Your task to perform on an android device: Open Google Chrome and click the shortcut for Amazon.com Image 0: 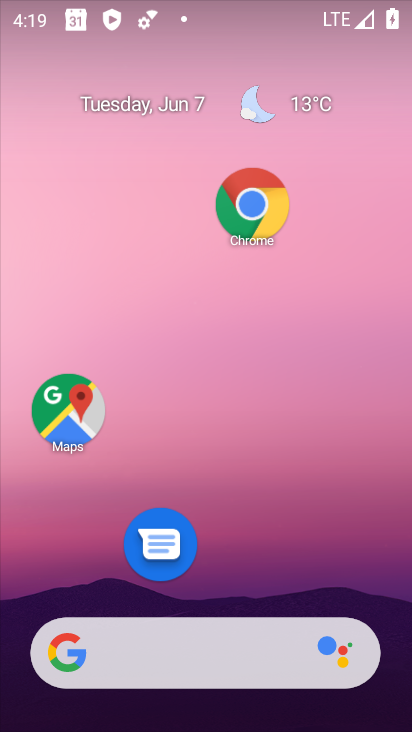
Step 0: drag from (232, 568) to (242, 232)
Your task to perform on an android device: Open Google Chrome and click the shortcut for Amazon.com Image 1: 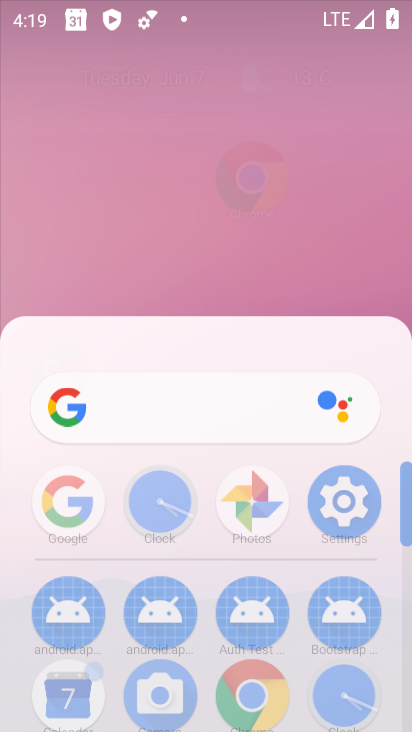
Step 1: click (245, 80)
Your task to perform on an android device: Open Google Chrome and click the shortcut for Amazon.com Image 2: 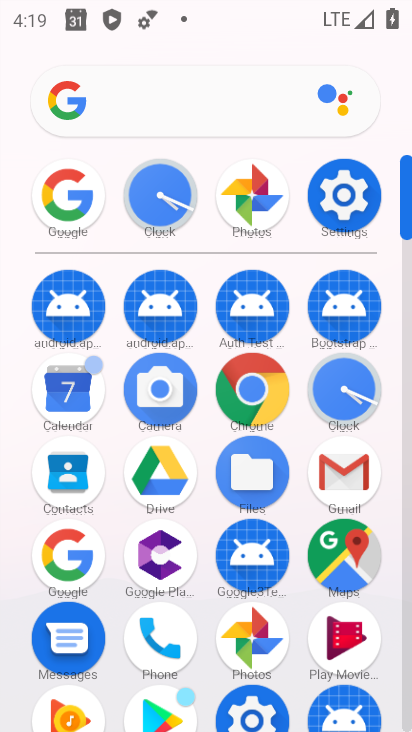
Step 2: click (253, 381)
Your task to perform on an android device: Open Google Chrome and click the shortcut for Amazon.com Image 3: 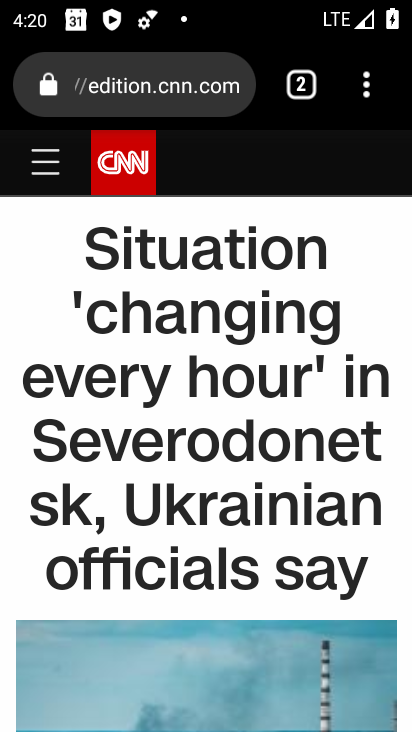
Step 3: click (313, 86)
Your task to perform on an android device: Open Google Chrome and click the shortcut for Amazon.com Image 4: 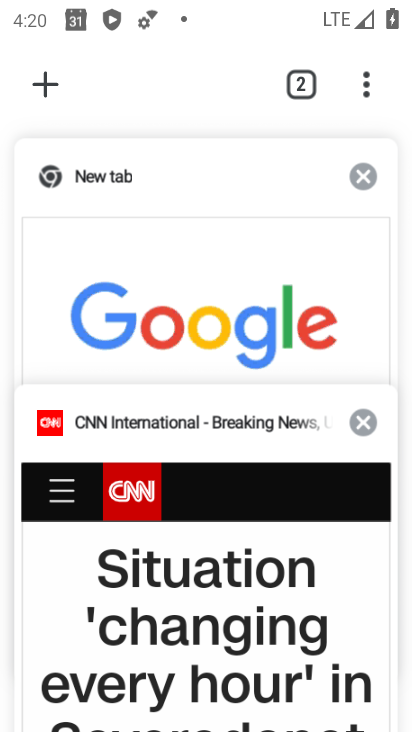
Step 4: click (362, 179)
Your task to perform on an android device: Open Google Chrome and click the shortcut for Amazon.com Image 5: 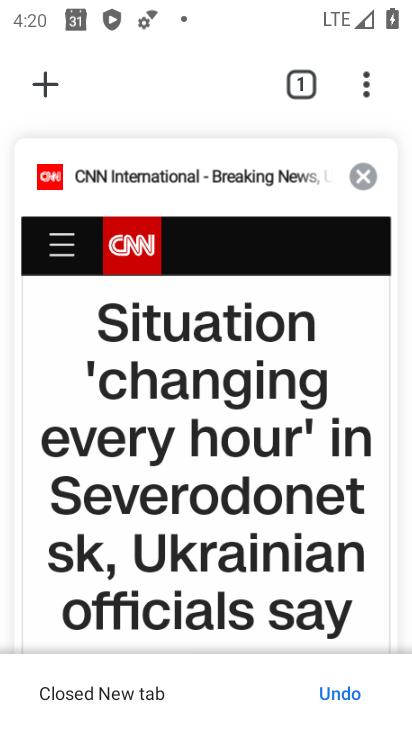
Step 5: click (362, 179)
Your task to perform on an android device: Open Google Chrome and click the shortcut for Amazon.com Image 6: 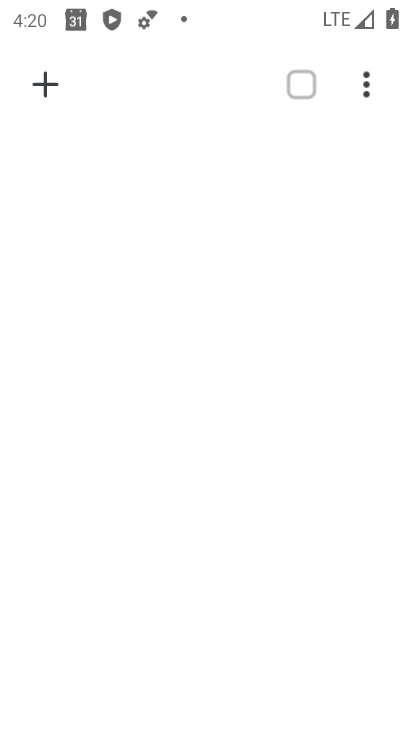
Step 6: click (58, 83)
Your task to perform on an android device: Open Google Chrome and click the shortcut for Amazon.com Image 7: 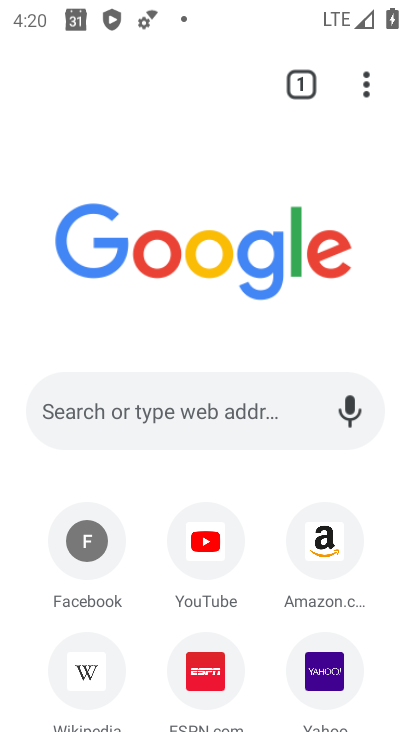
Step 7: click (325, 539)
Your task to perform on an android device: Open Google Chrome and click the shortcut for Amazon.com Image 8: 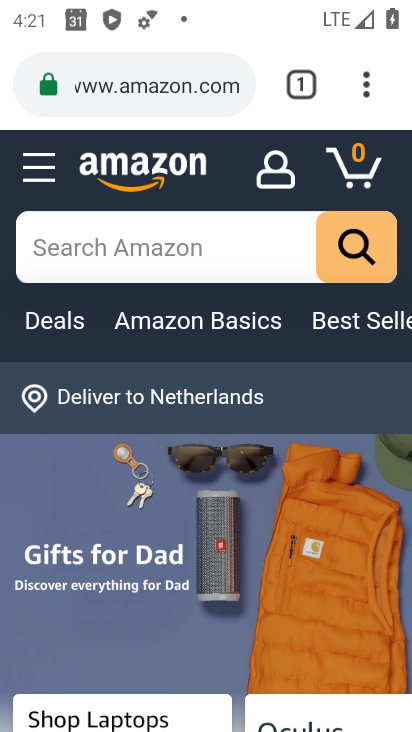
Step 8: task complete